Your task to perform on an android device: Open Google Chrome and click the shortcut for Amazon.com Image 0: 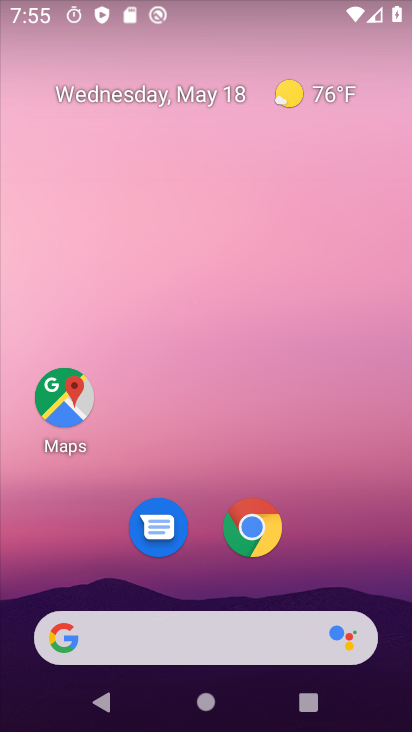
Step 0: click (266, 532)
Your task to perform on an android device: Open Google Chrome and click the shortcut for Amazon.com Image 1: 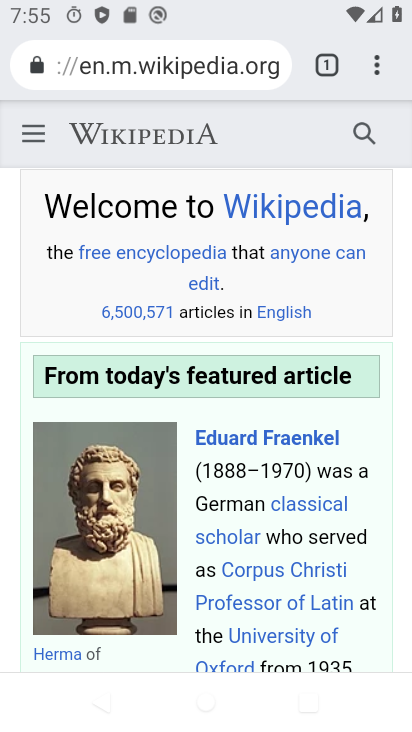
Step 1: press back button
Your task to perform on an android device: Open Google Chrome and click the shortcut for Amazon.com Image 2: 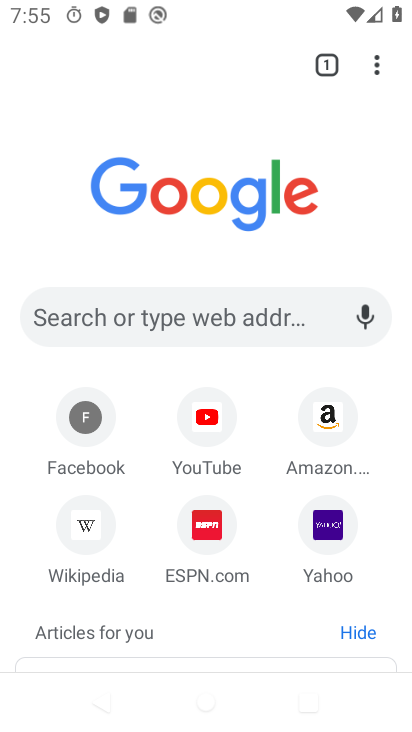
Step 2: click (344, 418)
Your task to perform on an android device: Open Google Chrome and click the shortcut for Amazon.com Image 3: 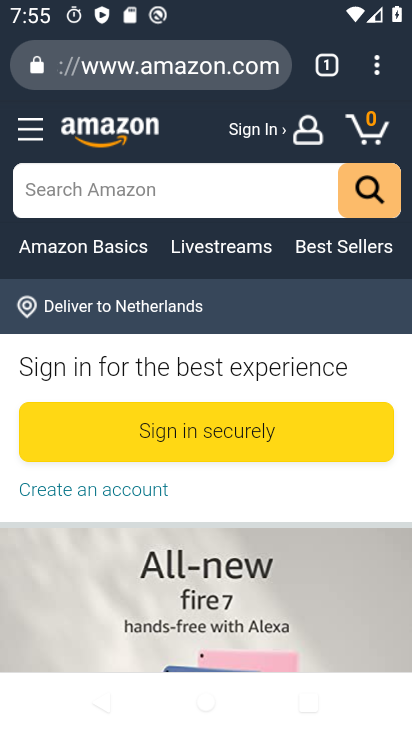
Step 3: task complete